Your task to perform on an android device: check android version Image 0: 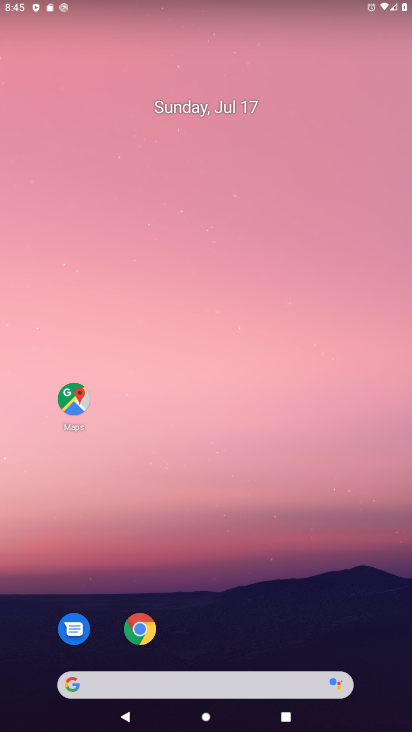
Step 0: drag from (338, 630) to (305, 16)
Your task to perform on an android device: check android version Image 1: 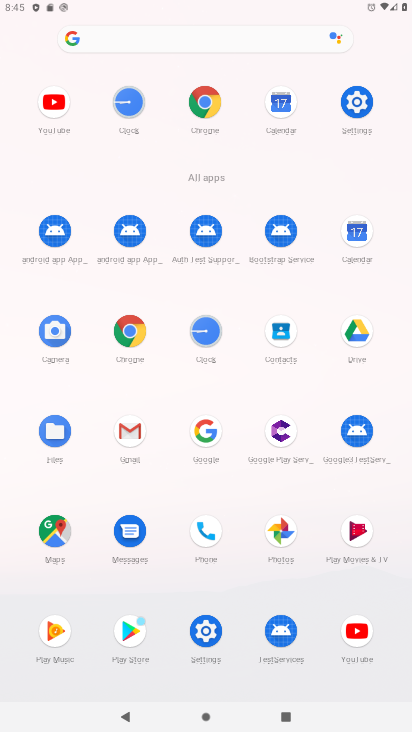
Step 1: click (359, 92)
Your task to perform on an android device: check android version Image 2: 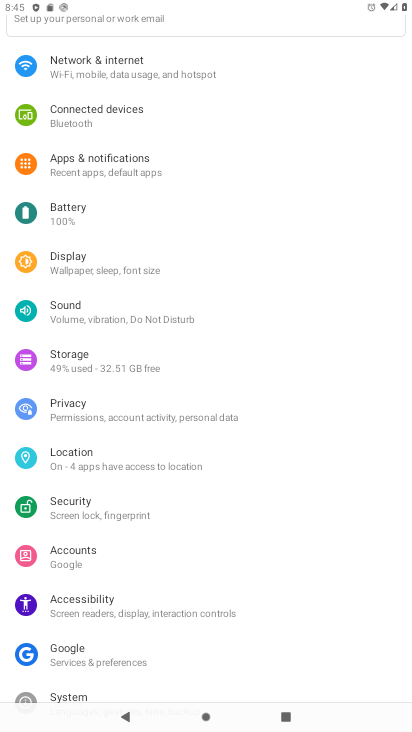
Step 2: drag from (180, 627) to (235, 253)
Your task to perform on an android device: check android version Image 3: 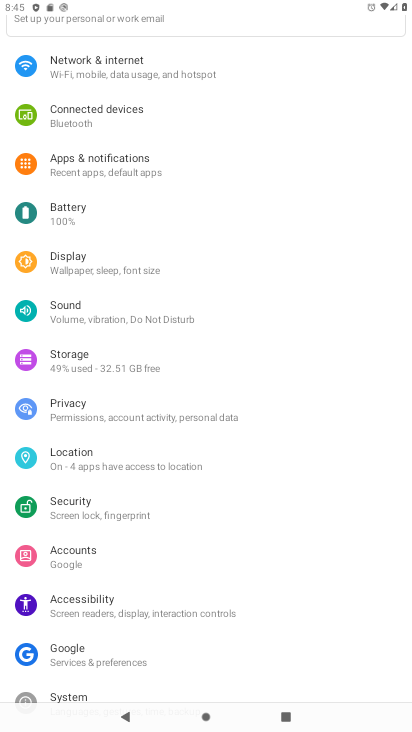
Step 3: click (61, 687)
Your task to perform on an android device: check android version Image 4: 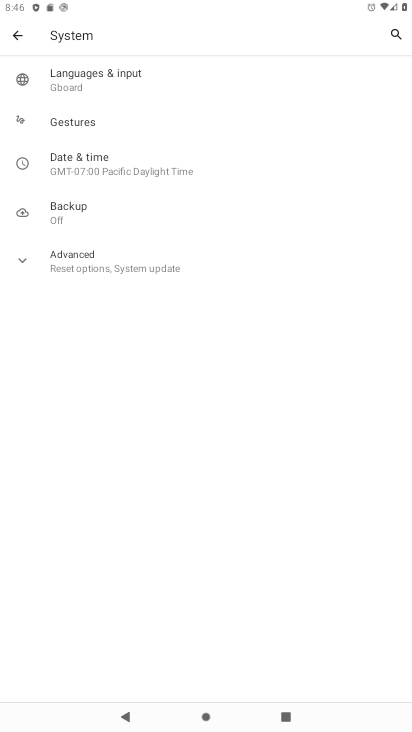
Step 4: task complete